Your task to perform on an android device: Go to wifi settings Image 0: 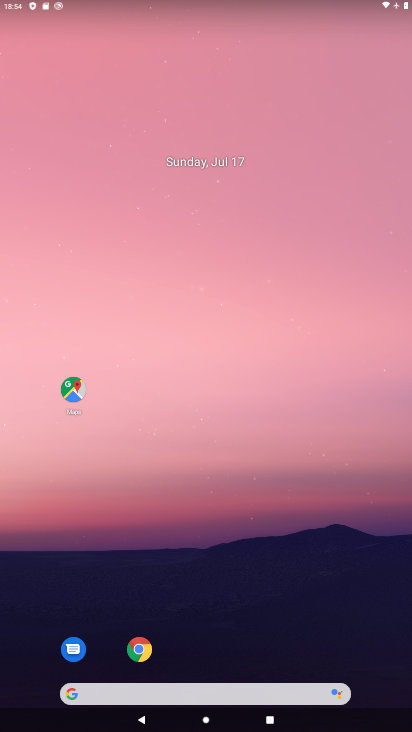
Step 0: drag from (254, 596) to (111, 102)
Your task to perform on an android device: Go to wifi settings Image 1: 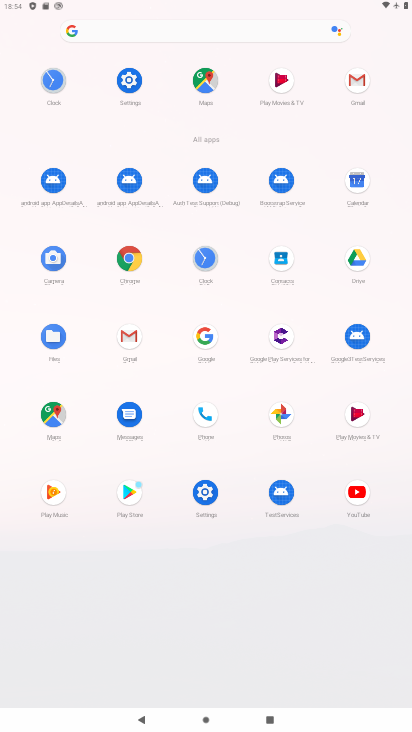
Step 1: click (128, 79)
Your task to perform on an android device: Go to wifi settings Image 2: 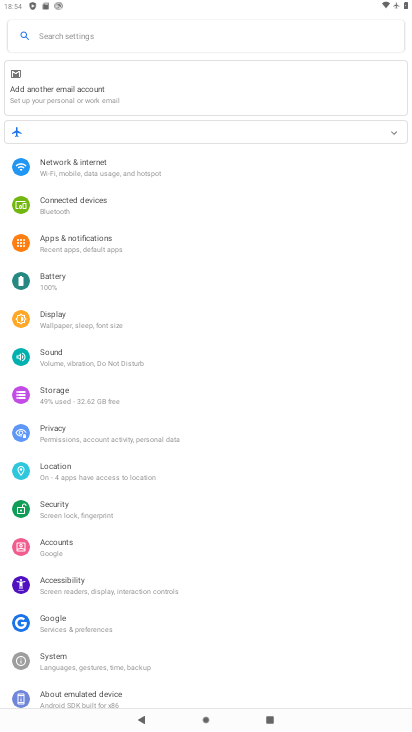
Step 2: click (84, 164)
Your task to perform on an android device: Go to wifi settings Image 3: 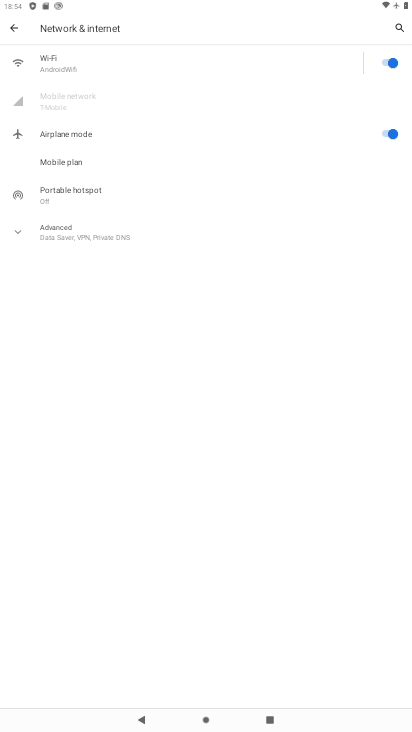
Step 3: click (94, 63)
Your task to perform on an android device: Go to wifi settings Image 4: 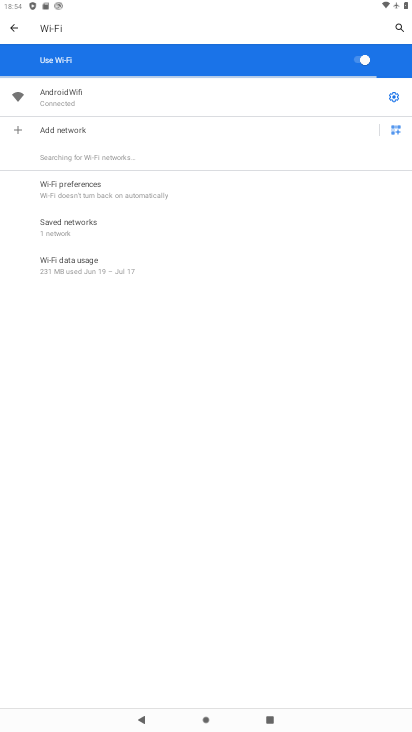
Step 4: task complete